Your task to perform on an android device: Find coffee shops on Maps Image 0: 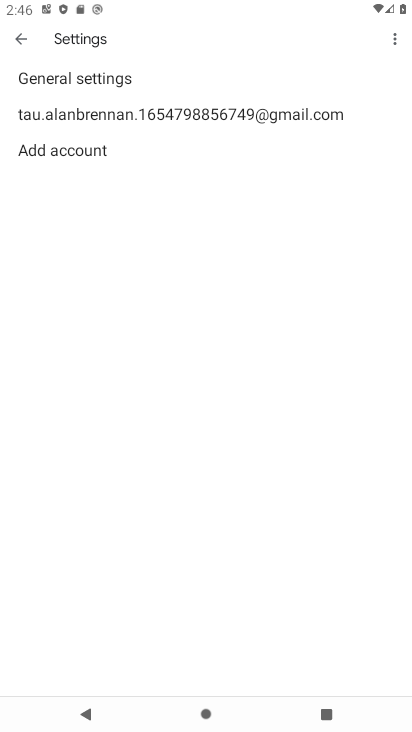
Step 0: press home button
Your task to perform on an android device: Find coffee shops on Maps Image 1: 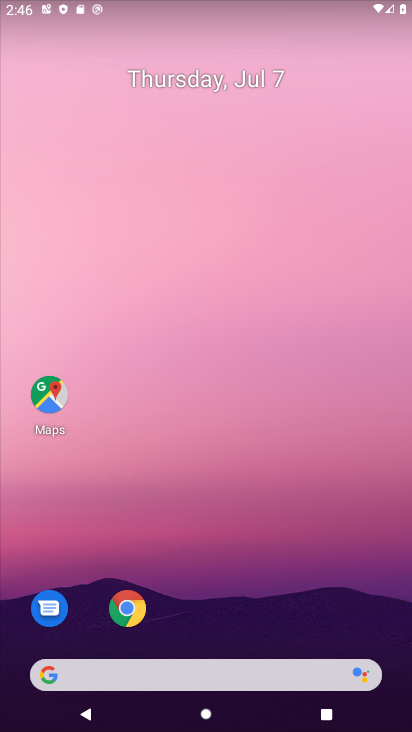
Step 1: click (51, 396)
Your task to perform on an android device: Find coffee shops on Maps Image 2: 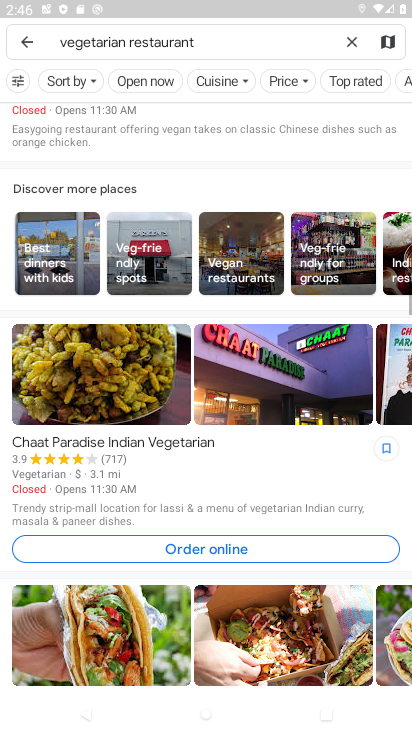
Step 2: click (352, 40)
Your task to perform on an android device: Find coffee shops on Maps Image 3: 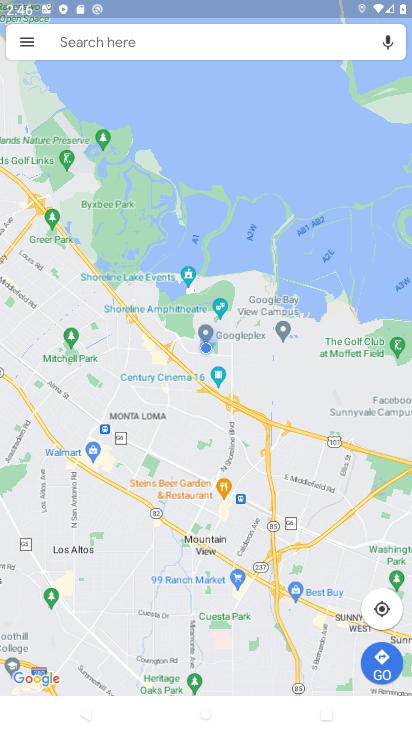
Step 3: click (105, 37)
Your task to perform on an android device: Find coffee shops on Maps Image 4: 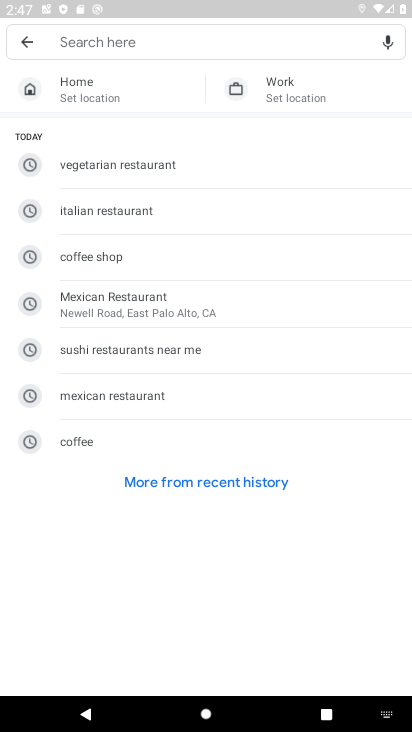
Step 4: type "coffee shop"
Your task to perform on an android device: Find coffee shops on Maps Image 5: 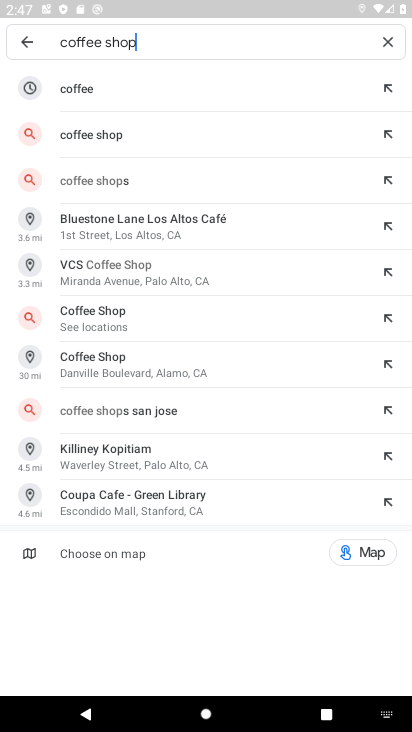
Step 5: click (102, 133)
Your task to perform on an android device: Find coffee shops on Maps Image 6: 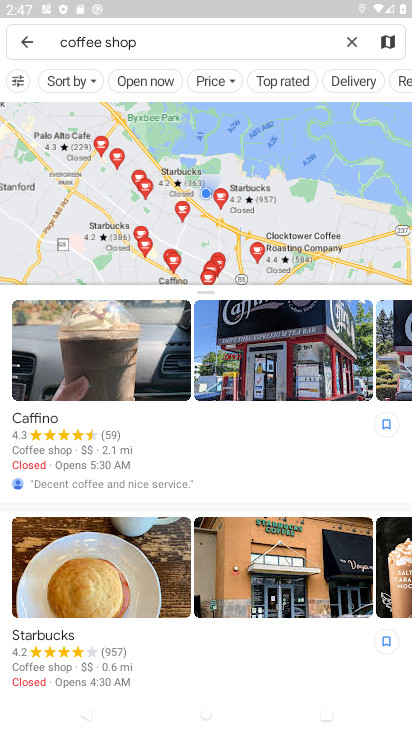
Step 6: task complete